Your task to perform on an android device: What's on my calendar today? Image 0: 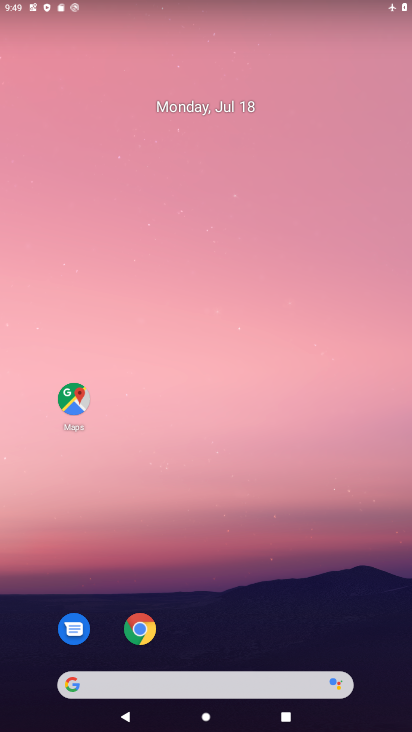
Step 0: drag from (233, 657) to (220, 168)
Your task to perform on an android device: What's on my calendar today? Image 1: 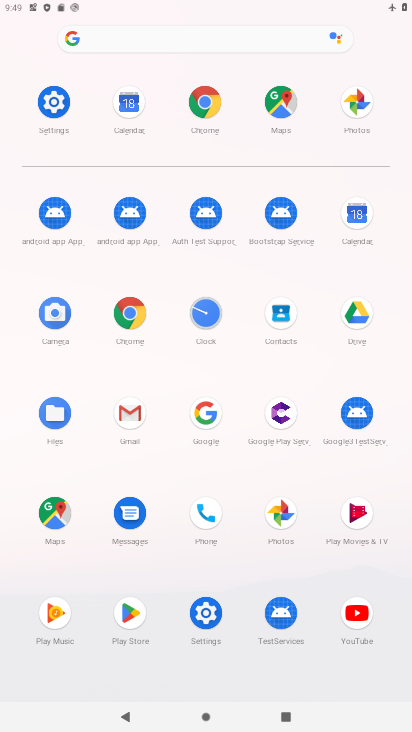
Step 1: click (351, 207)
Your task to perform on an android device: What's on my calendar today? Image 2: 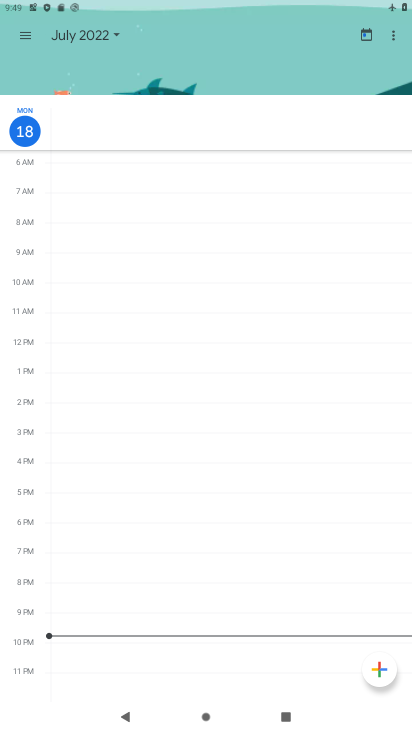
Step 2: click (58, 41)
Your task to perform on an android device: What's on my calendar today? Image 3: 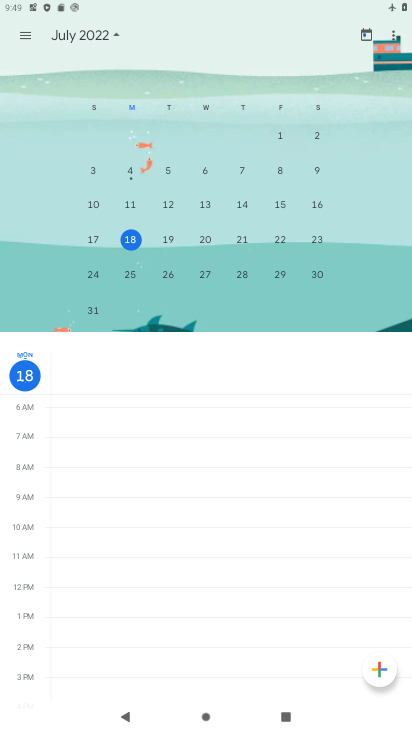
Step 3: click (136, 239)
Your task to perform on an android device: What's on my calendar today? Image 4: 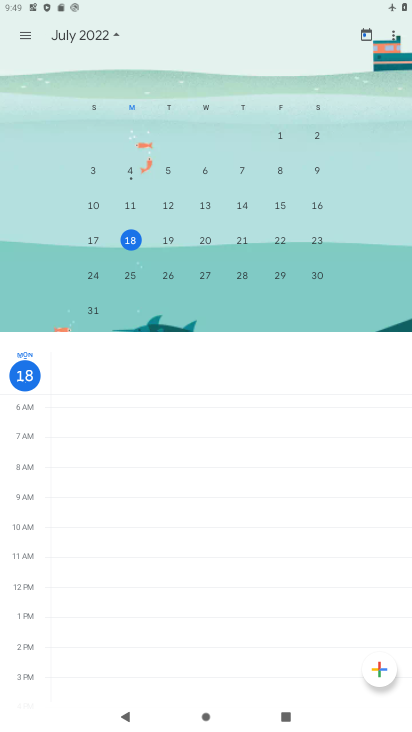
Step 4: task complete